Your task to perform on an android device: Go to calendar. Show me events next week Image 0: 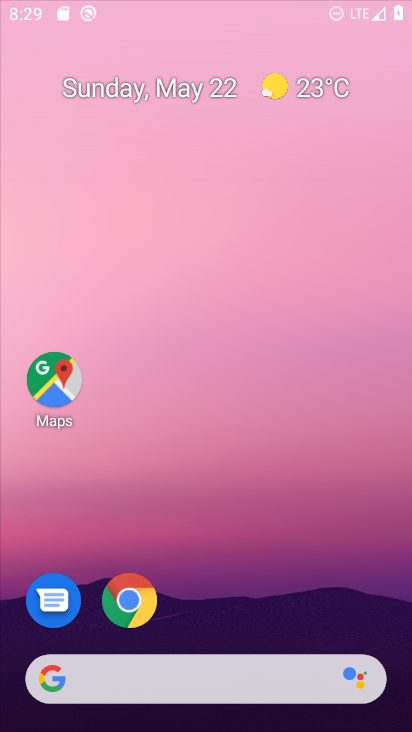
Step 0: drag from (346, 629) to (279, 1)
Your task to perform on an android device: Go to calendar. Show me events next week Image 1: 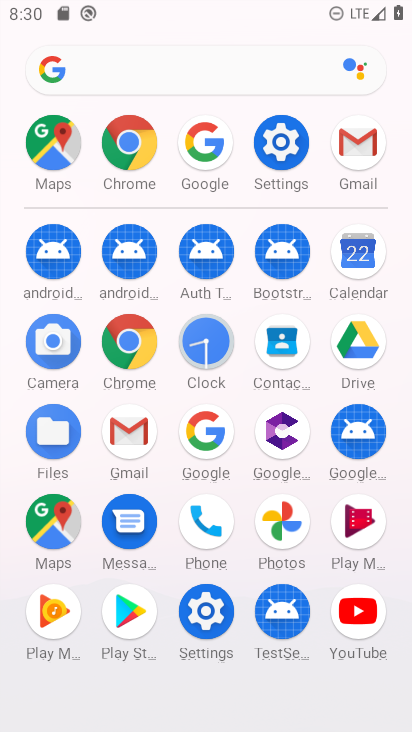
Step 1: click (363, 256)
Your task to perform on an android device: Go to calendar. Show me events next week Image 2: 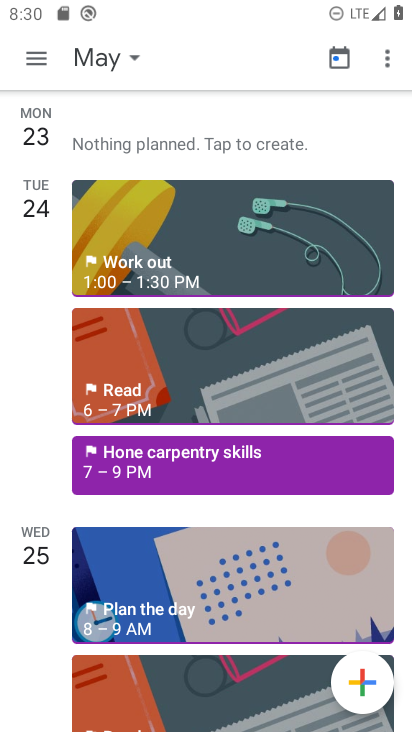
Step 2: click (27, 54)
Your task to perform on an android device: Go to calendar. Show me events next week Image 3: 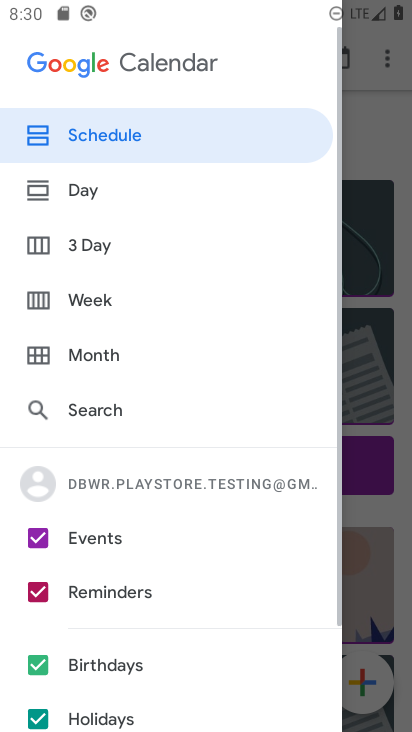
Step 3: click (156, 150)
Your task to perform on an android device: Go to calendar. Show me events next week Image 4: 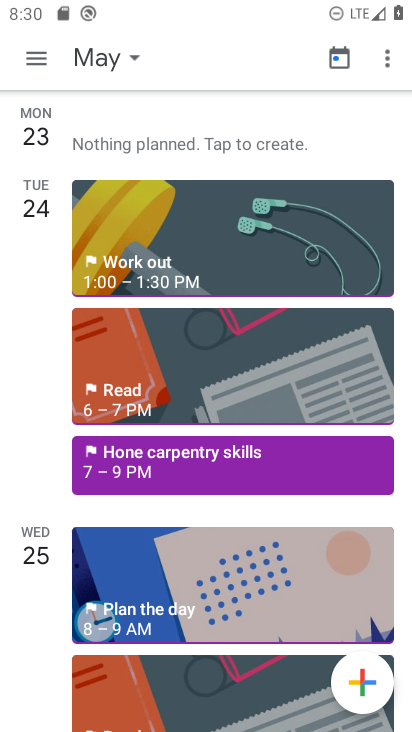
Step 4: task complete